Your task to perform on an android device: turn on location history Image 0: 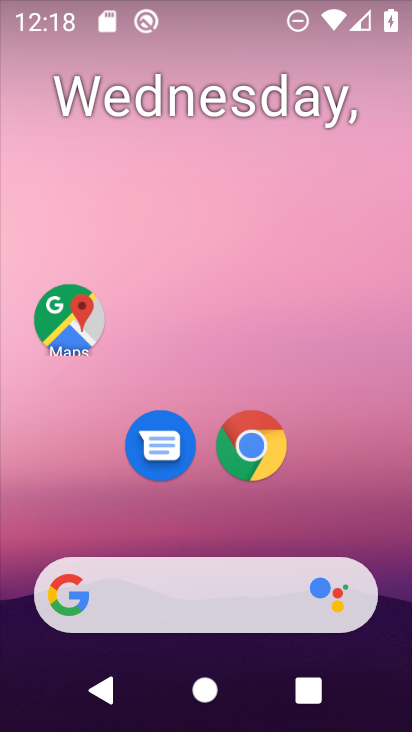
Step 0: drag from (383, 643) to (296, 65)
Your task to perform on an android device: turn on location history Image 1: 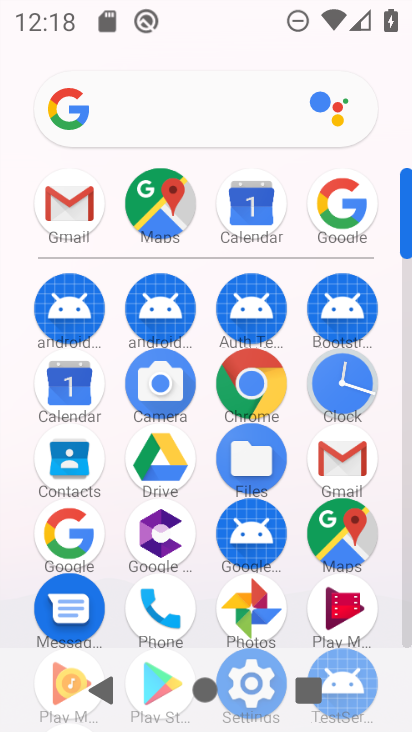
Step 1: drag from (296, 614) to (294, 133)
Your task to perform on an android device: turn on location history Image 2: 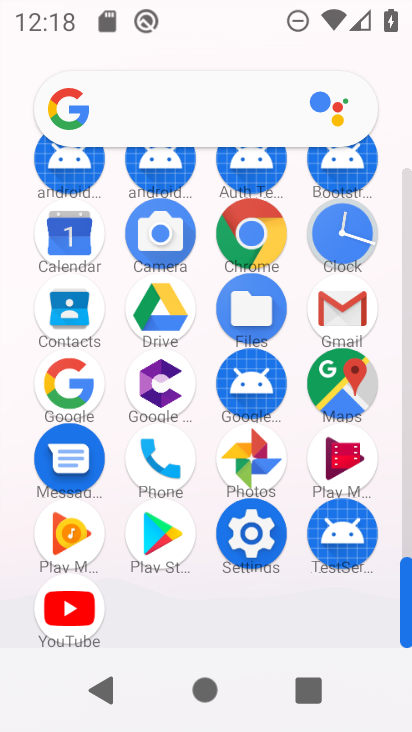
Step 2: click (266, 540)
Your task to perform on an android device: turn on location history Image 3: 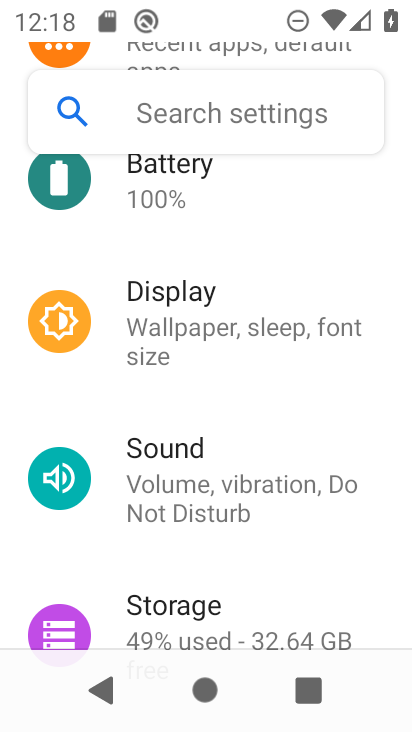
Step 3: drag from (191, 223) to (269, 578)
Your task to perform on an android device: turn on location history Image 4: 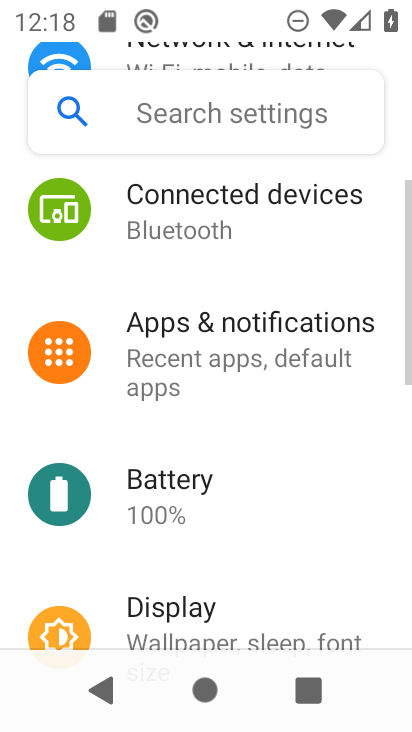
Step 4: drag from (269, 578) to (291, 1)
Your task to perform on an android device: turn on location history Image 5: 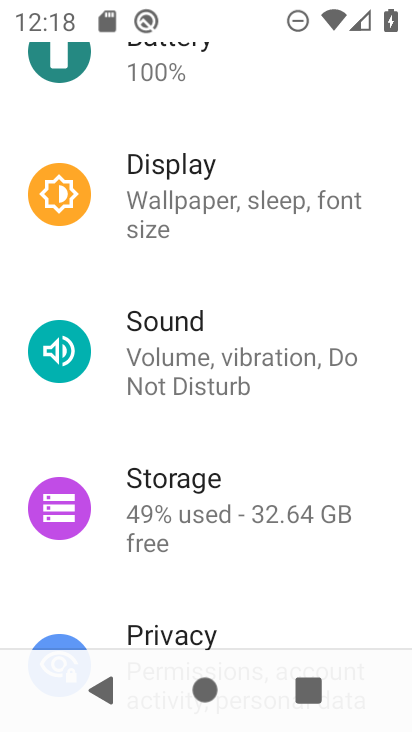
Step 5: drag from (194, 584) to (237, 56)
Your task to perform on an android device: turn on location history Image 6: 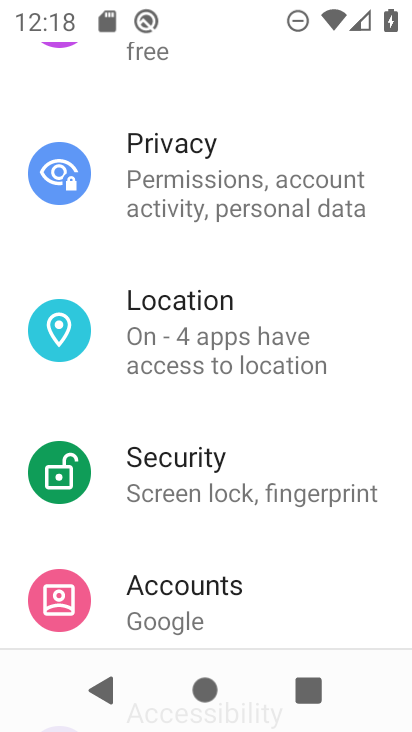
Step 6: click (189, 329)
Your task to perform on an android device: turn on location history Image 7: 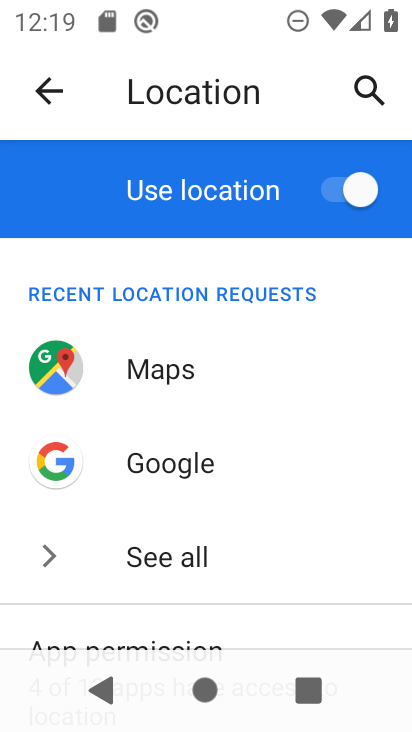
Step 7: drag from (138, 590) to (152, 139)
Your task to perform on an android device: turn on location history Image 8: 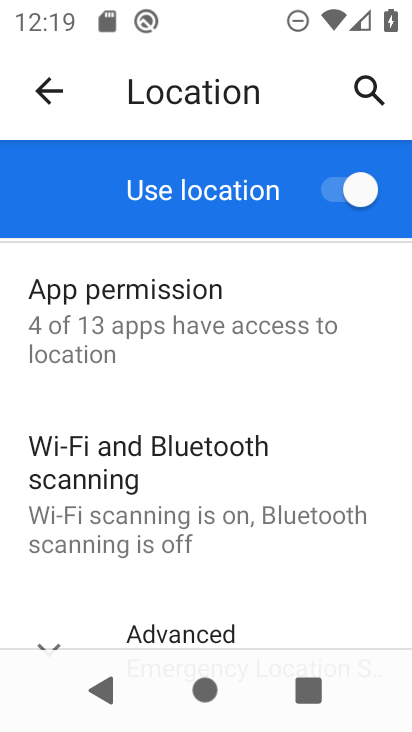
Step 8: click (177, 631)
Your task to perform on an android device: turn on location history Image 9: 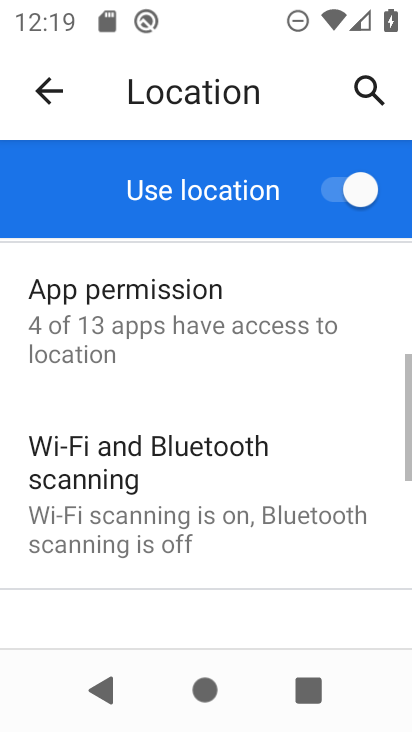
Step 9: drag from (173, 580) to (206, 126)
Your task to perform on an android device: turn on location history Image 10: 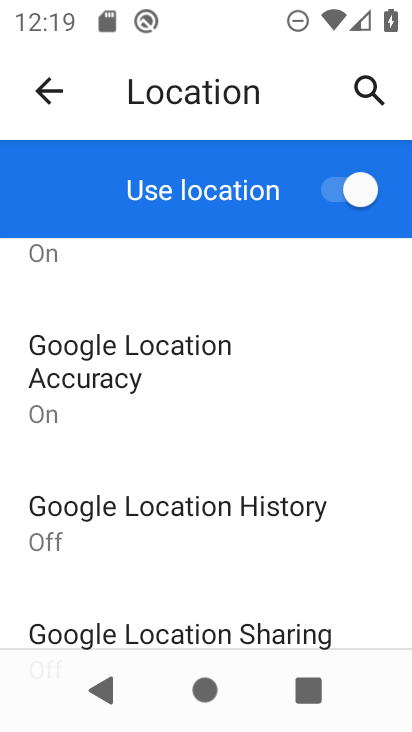
Step 10: click (221, 508)
Your task to perform on an android device: turn on location history Image 11: 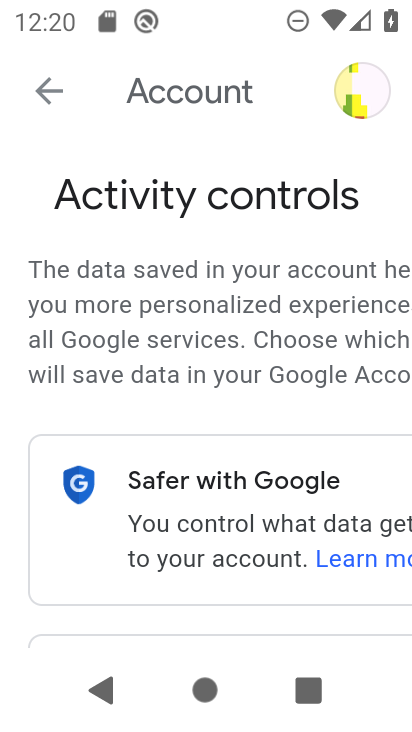
Step 11: drag from (359, 573) to (173, 60)
Your task to perform on an android device: turn on location history Image 12: 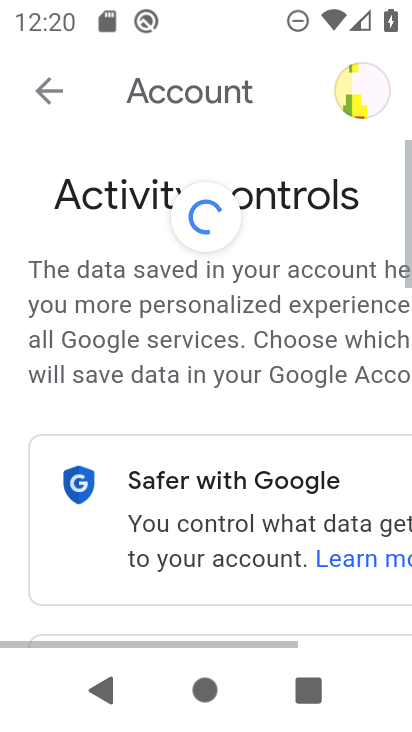
Step 12: drag from (213, 599) to (169, 149)
Your task to perform on an android device: turn on location history Image 13: 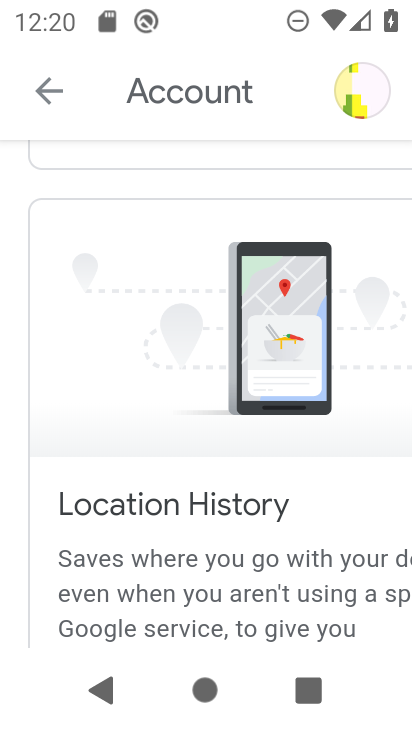
Step 13: drag from (313, 596) to (133, 37)
Your task to perform on an android device: turn on location history Image 14: 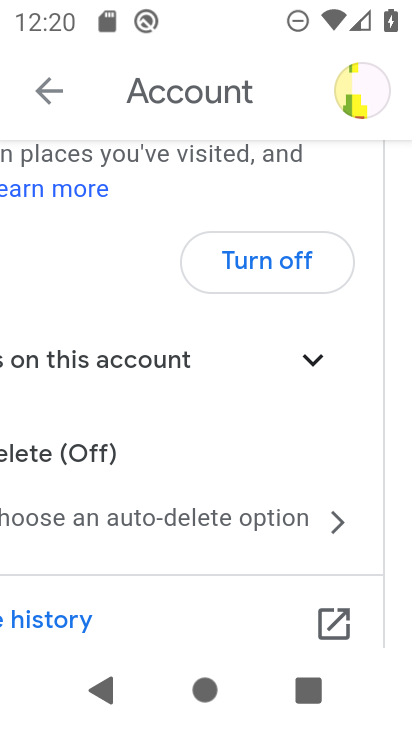
Step 14: click (275, 263)
Your task to perform on an android device: turn on location history Image 15: 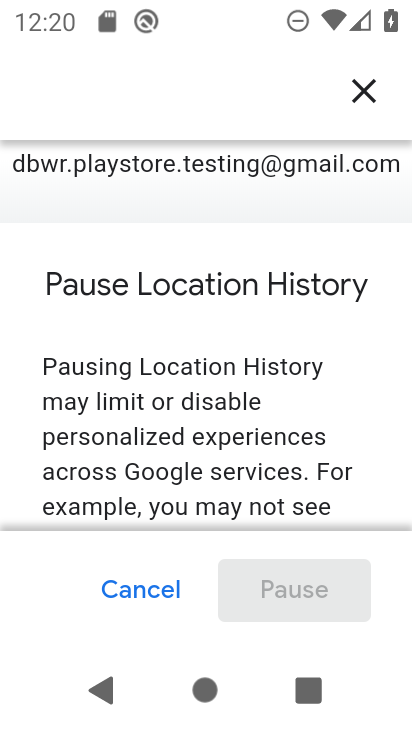
Step 15: task complete